Your task to perform on an android device: turn on bluetooth scan Image 0: 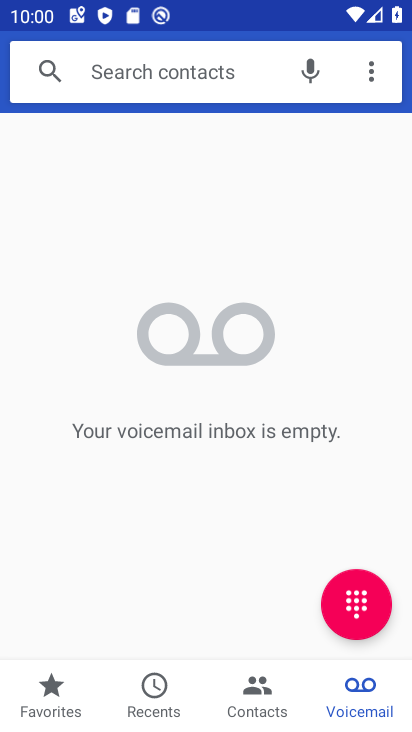
Step 0: press home button
Your task to perform on an android device: turn on bluetooth scan Image 1: 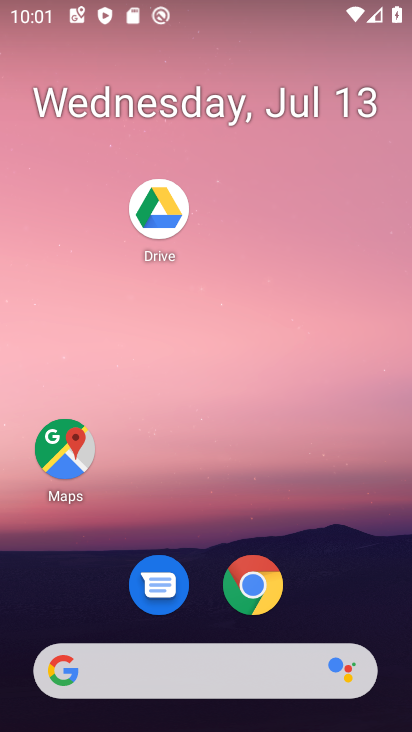
Step 1: drag from (204, 680) to (299, 120)
Your task to perform on an android device: turn on bluetooth scan Image 2: 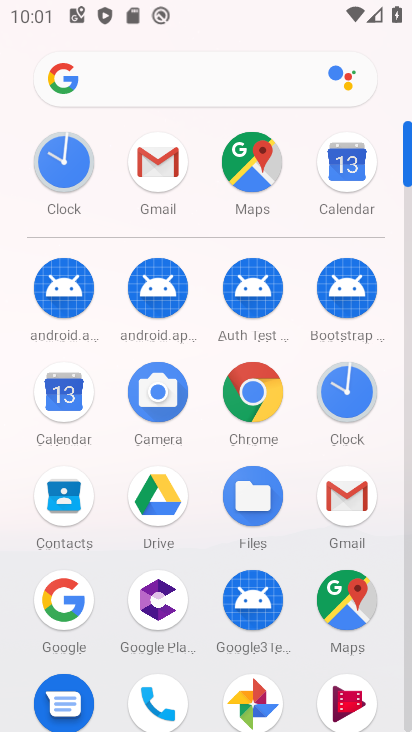
Step 2: drag from (214, 659) to (296, 259)
Your task to perform on an android device: turn on bluetooth scan Image 3: 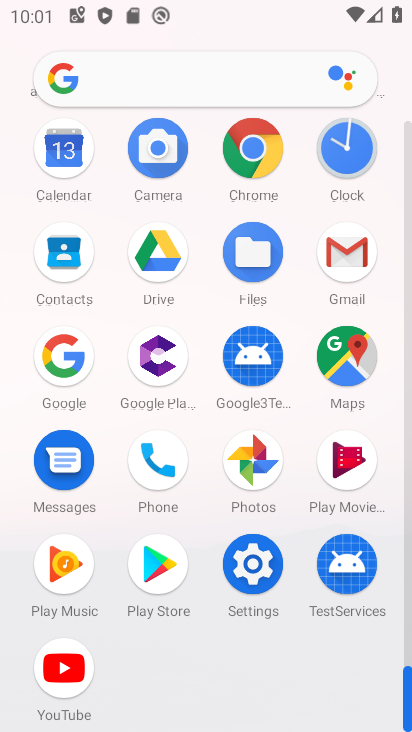
Step 3: click (247, 564)
Your task to perform on an android device: turn on bluetooth scan Image 4: 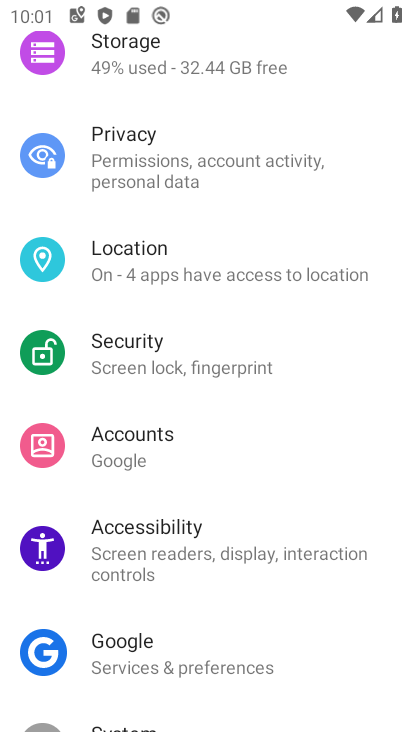
Step 4: drag from (239, 109) to (286, 442)
Your task to perform on an android device: turn on bluetooth scan Image 5: 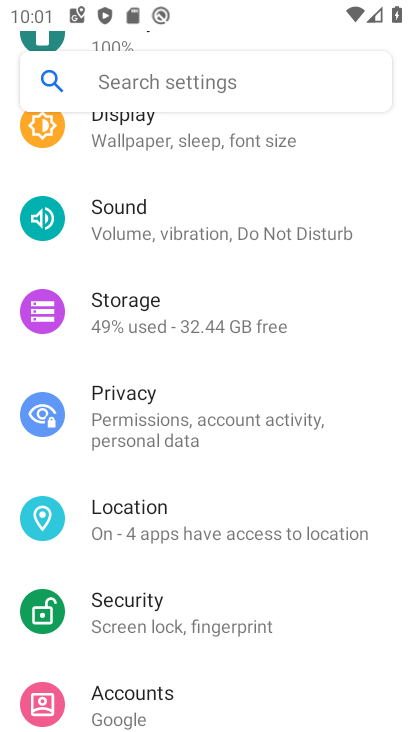
Step 5: click (177, 526)
Your task to perform on an android device: turn on bluetooth scan Image 6: 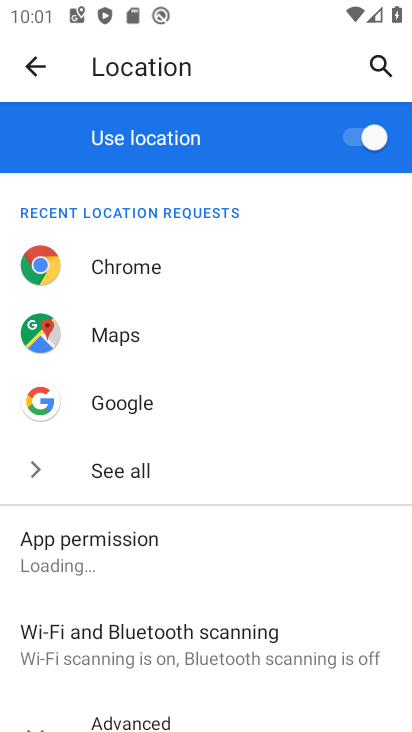
Step 6: click (184, 639)
Your task to perform on an android device: turn on bluetooth scan Image 7: 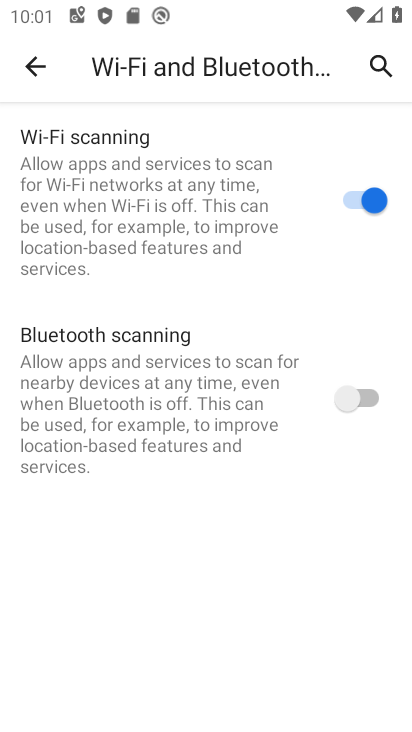
Step 7: click (372, 396)
Your task to perform on an android device: turn on bluetooth scan Image 8: 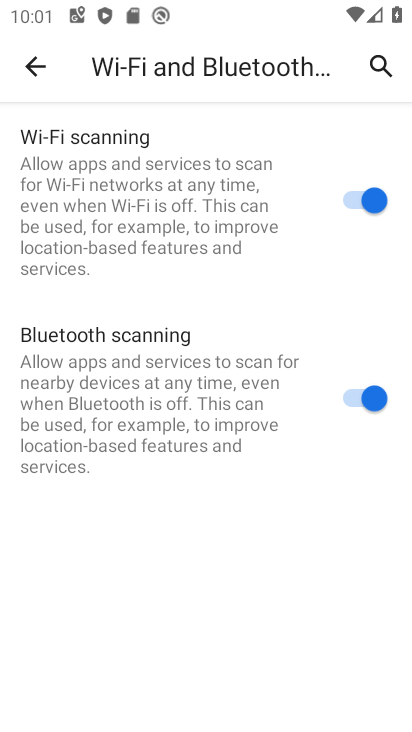
Step 8: task complete